Your task to perform on an android device: install app "Adobe Acrobat Reader: Edit PDF" Image 0: 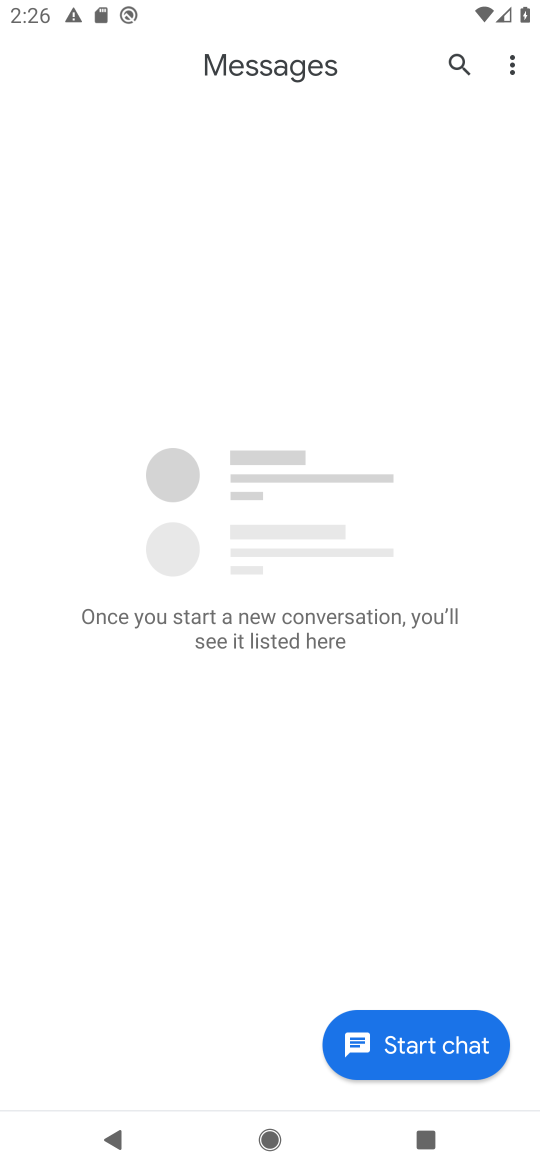
Step 0: press home button
Your task to perform on an android device: install app "Adobe Acrobat Reader: Edit PDF" Image 1: 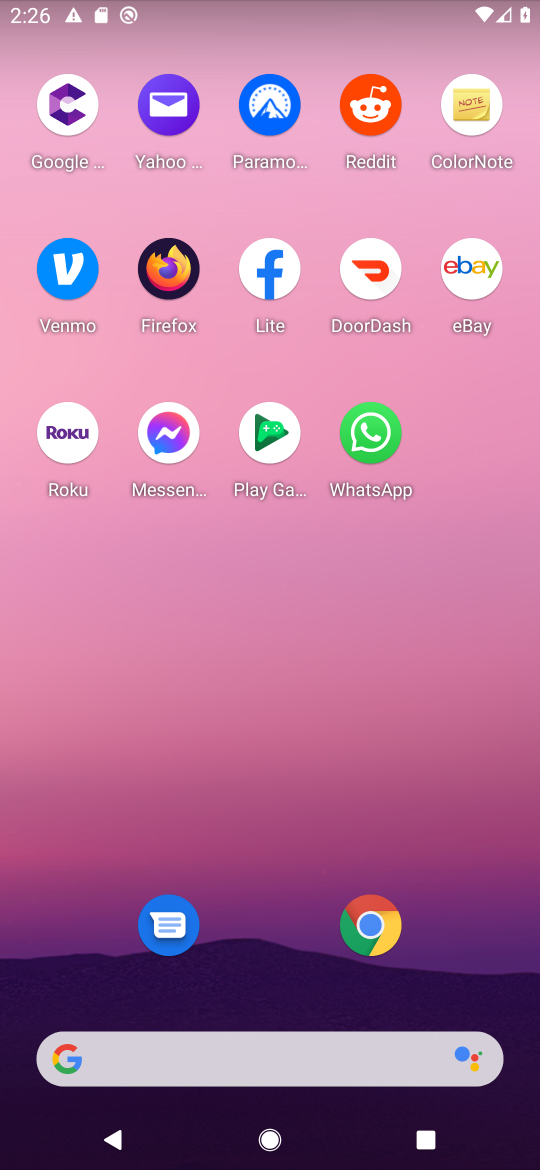
Step 1: drag from (248, 973) to (287, 224)
Your task to perform on an android device: install app "Adobe Acrobat Reader: Edit PDF" Image 2: 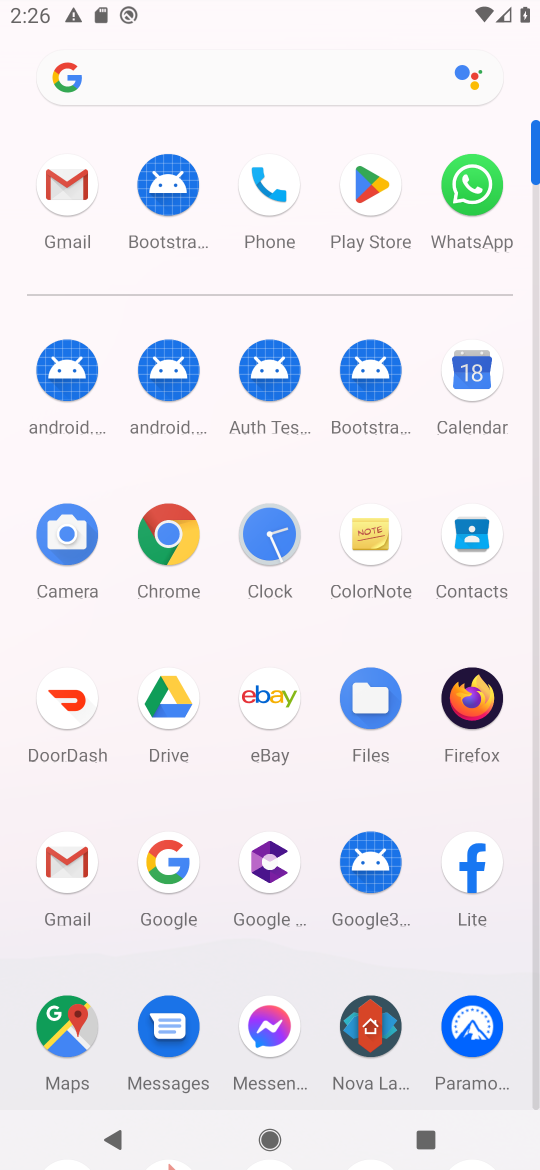
Step 2: click (368, 195)
Your task to perform on an android device: install app "Adobe Acrobat Reader: Edit PDF" Image 3: 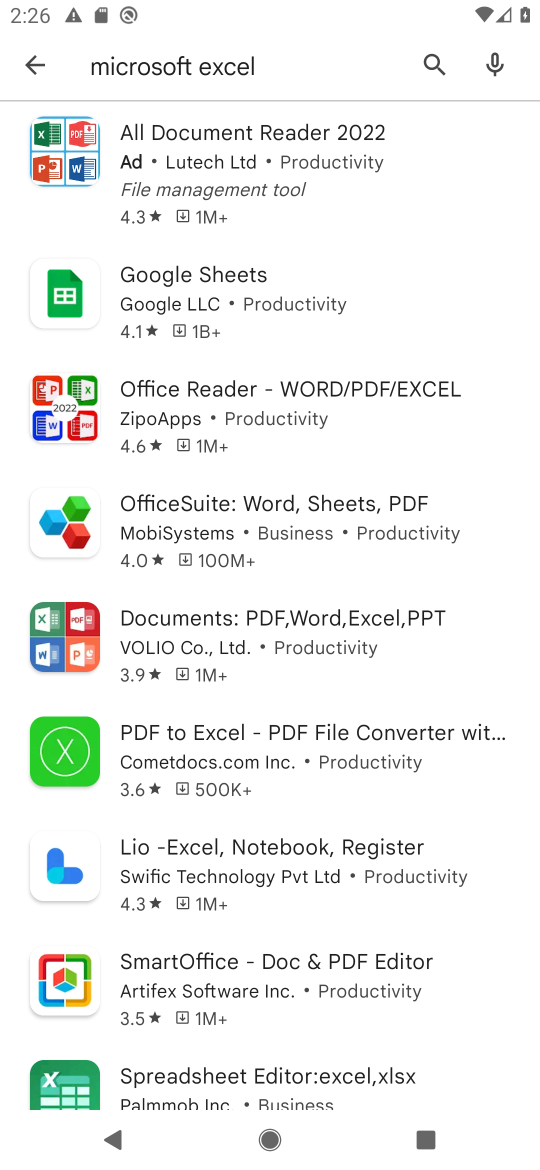
Step 3: click (31, 74)
Your task to perform on an android device: install app "Adobe Acrobat Reader: Edit PDF" Image 4: 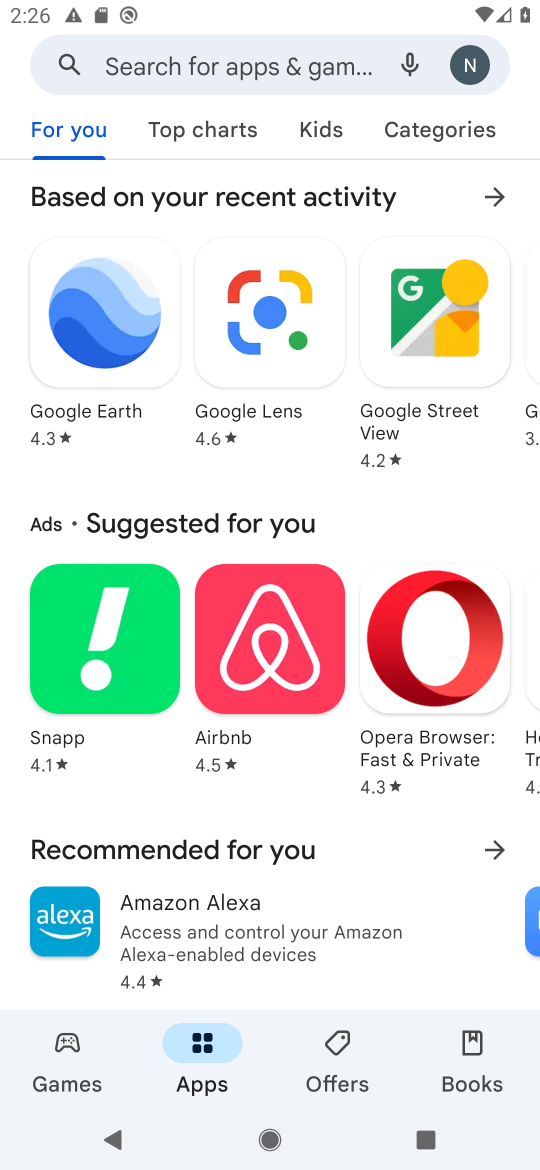
Step 4: click (206, 64)
Your task to perform on an android device: install app "Adobe Acrobat Reader: Edit PDF" Image 5: 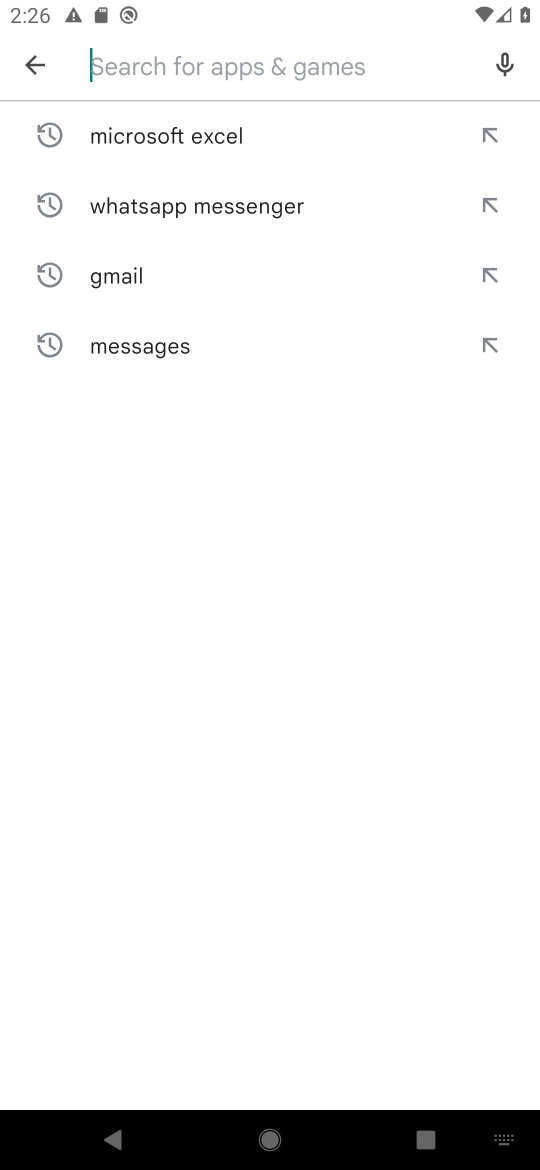
Step 5: type "Adobe Acrobat Reader: Edit PDF"
Your task to perform on an android device: install app "Adobe Acrobat Reader: Edit PDF" Image 6: 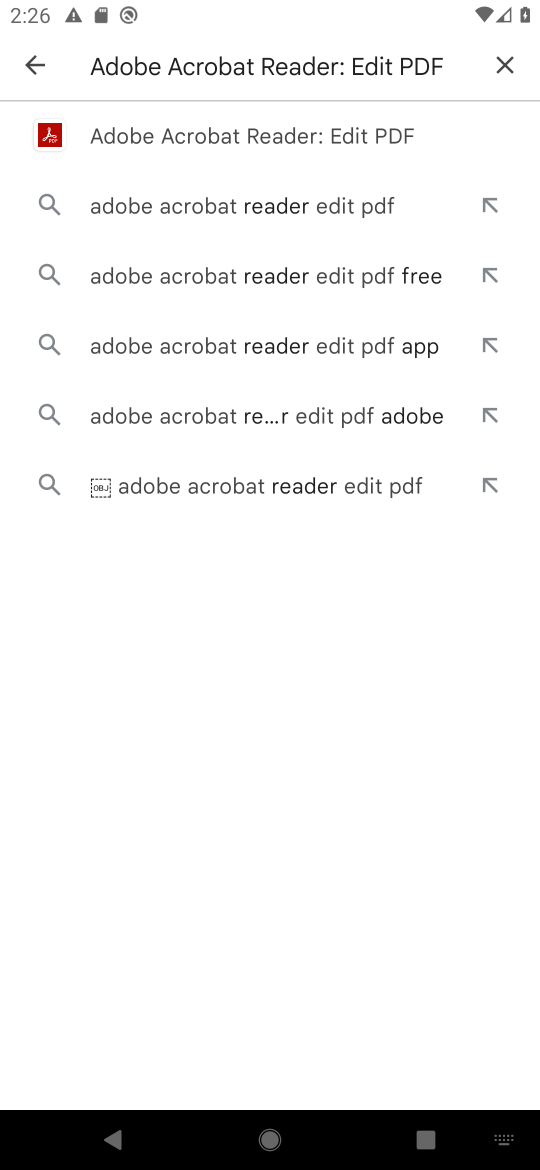
Step 6: click (243, 135)
Your task to perform on an android device: install app "Adobe Acrobat Reader: Edit PDF" Image 7: 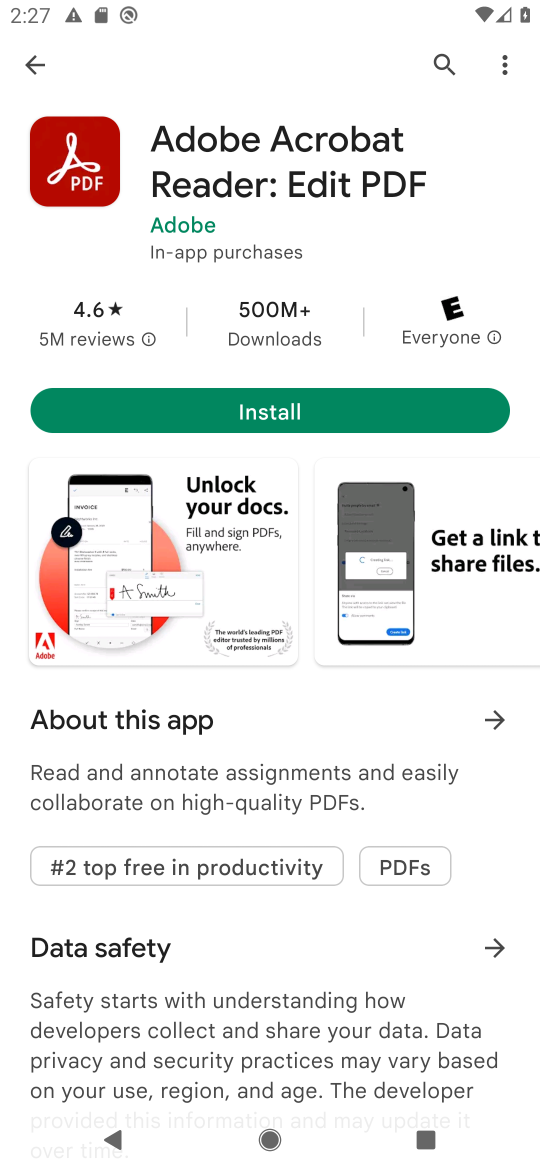
Step 7: click (272, 404)
Your task to perform on an android device: install app "Adobe Acrobat Reader: Edit PDF" Image 8: 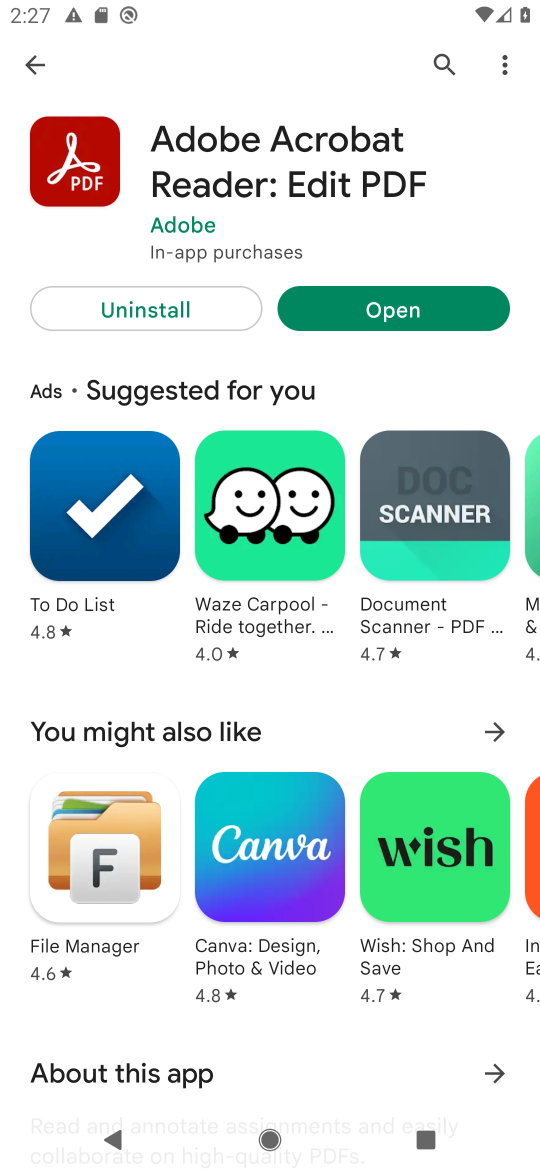
Step 8: task complete